Your task to perform on an android device: change timer sound Image 0: 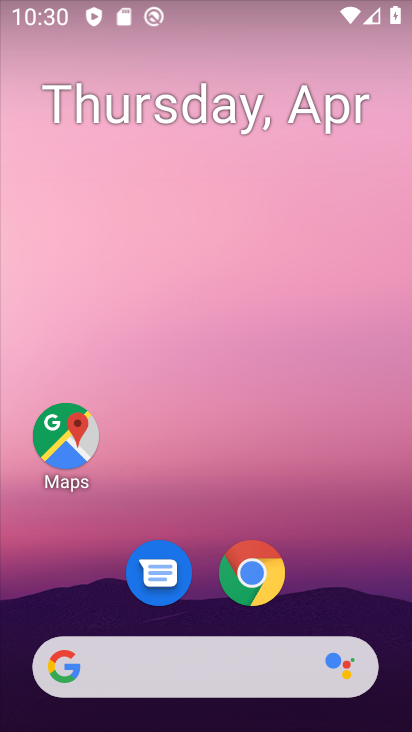
Step 0: drag from (212, 632) to (196, 196)
Your task to perform on an android device: change timer sound Image 1: 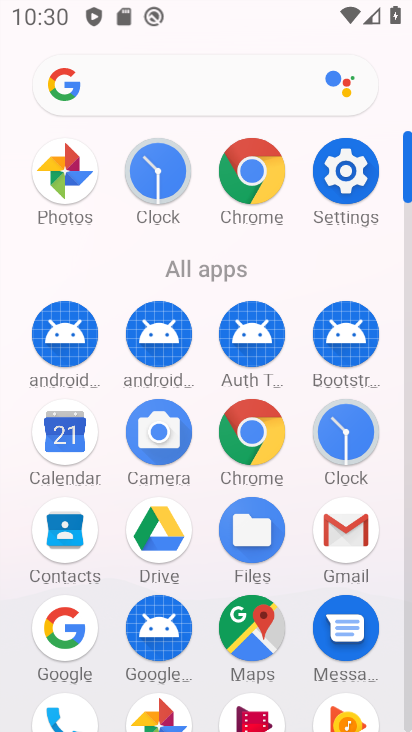
Step 1: click (322, 437)
Your task to perform on an android device: change timer sound Image 2: 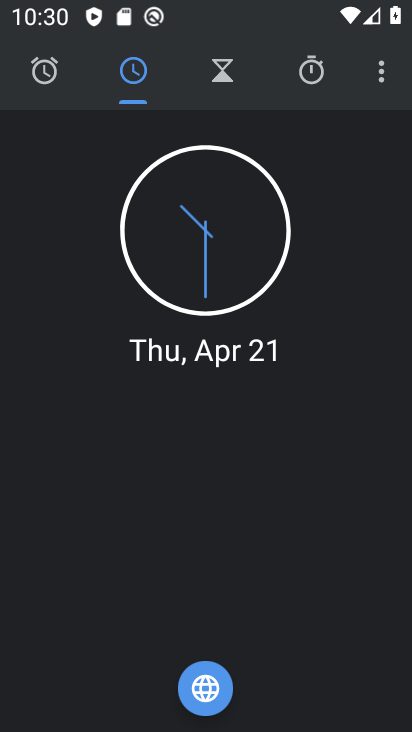
Step 2: click (364, 67)
Your task to perform on an android device: change timer sound Image 3: 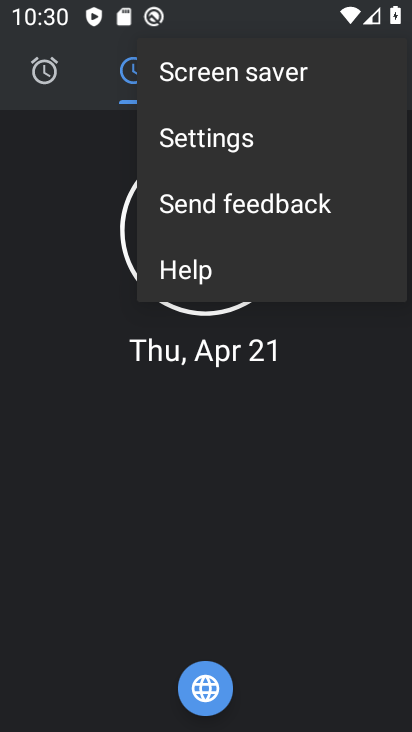
Step 3: click (305, 145)
Your task to perform on an android device: change timer sound Image 4: 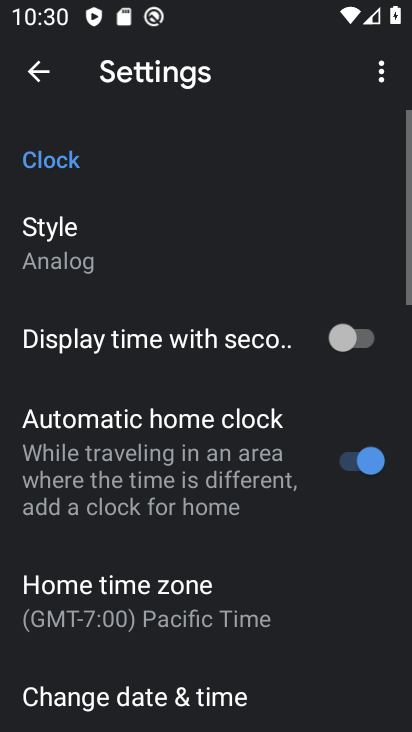
Step 4: drag from (172, 630) to (169, 149)
Your task to perform on an android device: change timer sound Image 5: 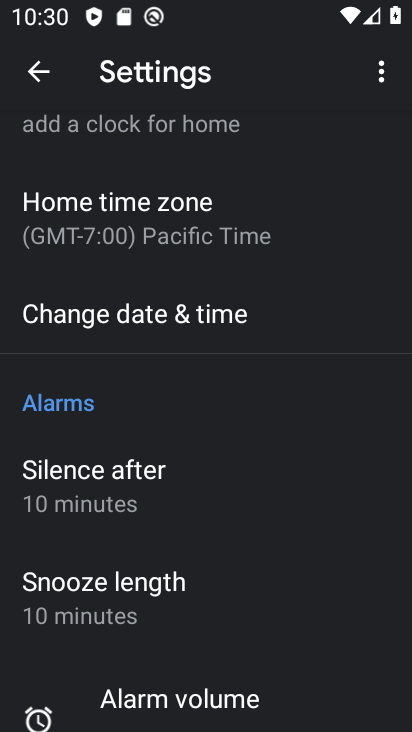
Step 5: drag from (175, 557) to (199, 137)
Your task to perform on an android device: change timer sound Image 6: 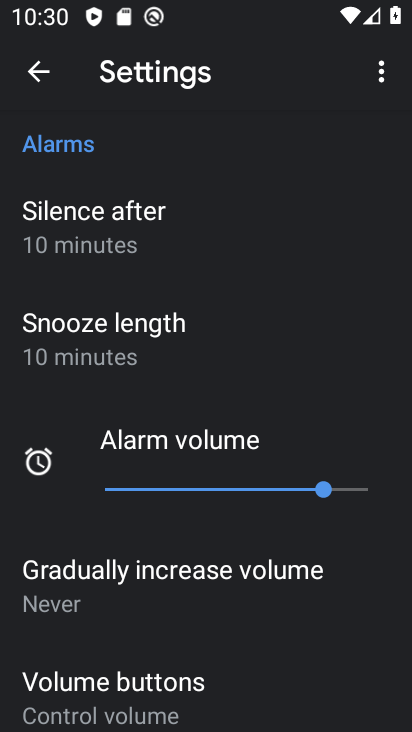
Step 6: drag from (227, 639) to (234, 167)
Your task to perform on an android device: change timer sound Image 7: 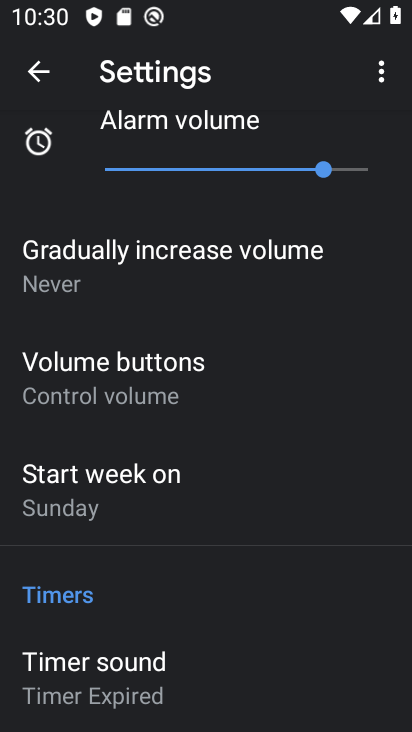
Step 7: click (199, 668)
Your task to perform on an android device: change timer sound Image 8: 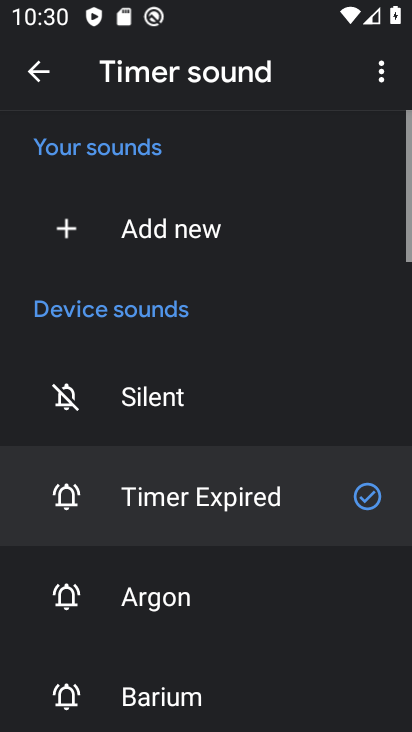
Step 8: click (136, 595)
Your task to perform on an android device: change timer sound Image 9: 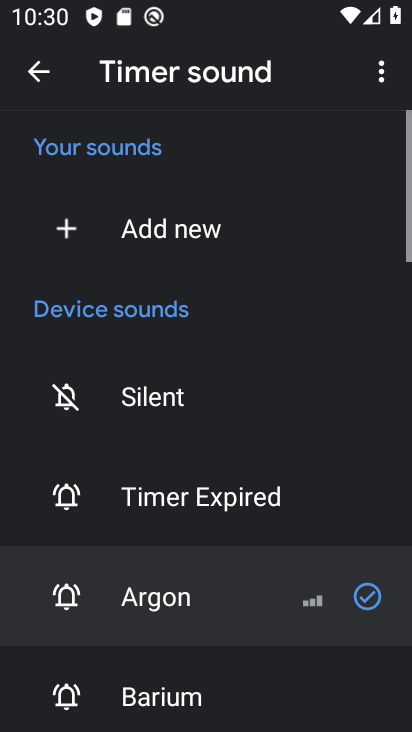
Step 9: task complete